Your task to perform on an android device: change the clock display to analog Image 0: 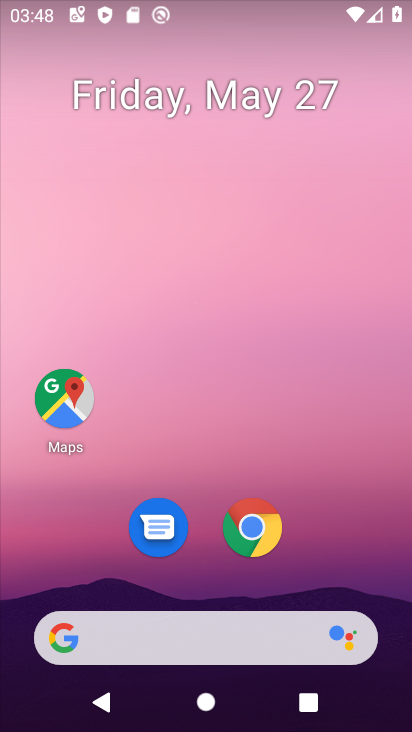
Step 0: drag from (352, 568) to (342, 112)
Your task to perform on an android device: change the clock display to analog Image 1: 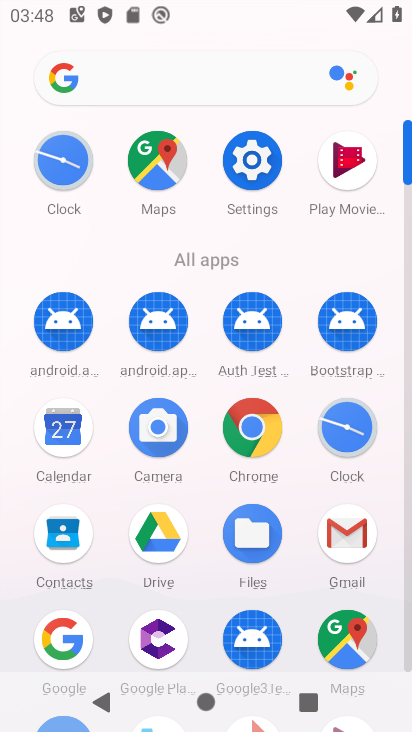
Step 1: click (338, 431)
Your task to perform on an android device: change the clock display to analog Image 2: 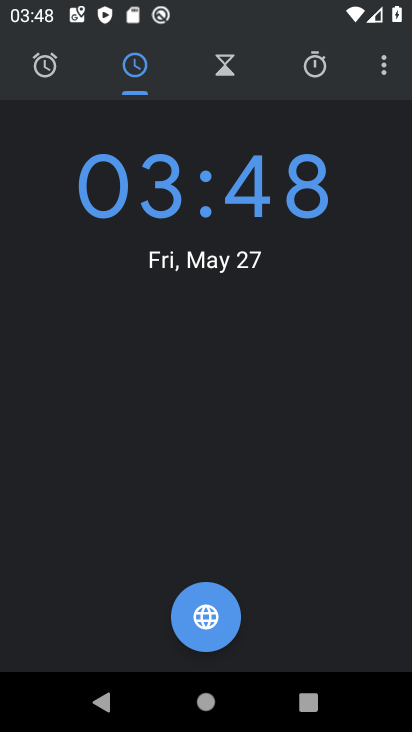
Step 2: click (382, 77)
Your task to perform on an android device: change the clock display to analog Image 3: 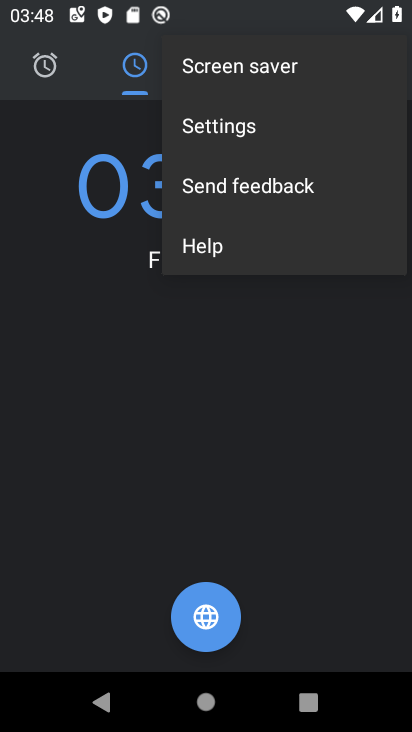
Step 3: click (208, 127)
Your task to perform on an android device: change the clock display to analog Image 4: 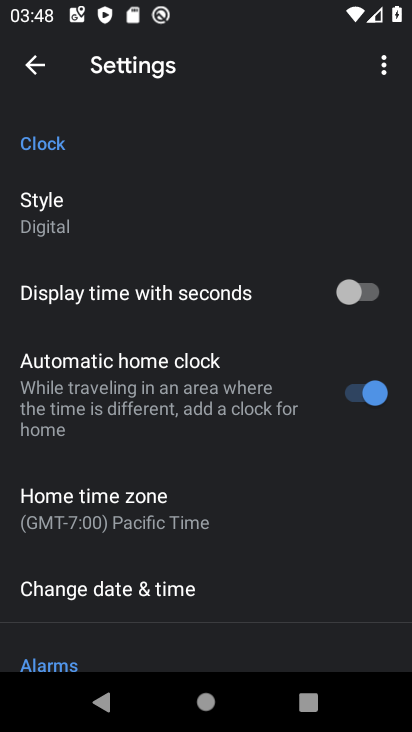
Step 4: drag from (117, 192) to (91, 601)
Your task to perform on an android device: change the clock display to analog Image 5: 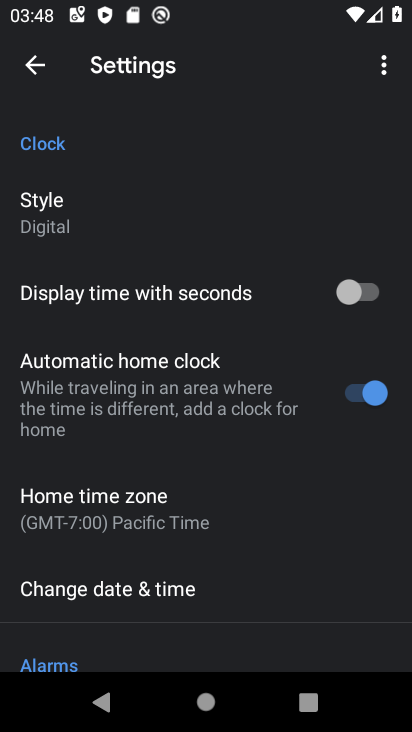
Step 5: click (109, 195)
Your task to perform on an android device: change the clock display to analog Image 6: 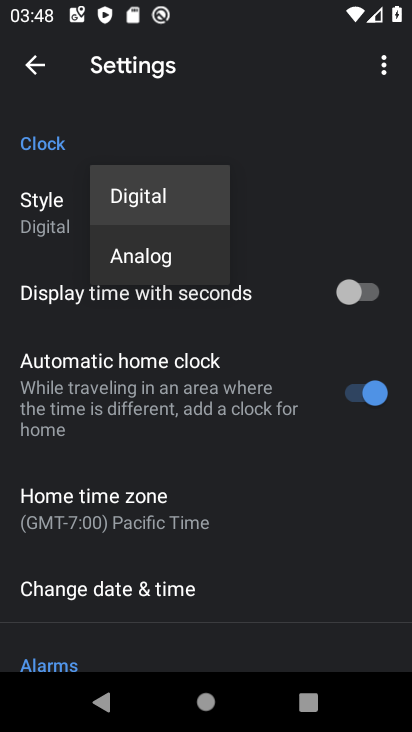
Step 6: click (120, 270)
Your task to perform on an android device: change the clock display to analog Image 7: 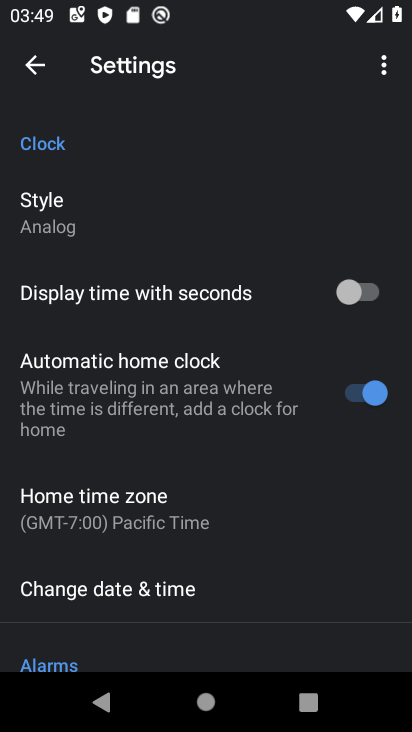
Step 7: task complete